Your task to perform on an android device: change alarm snooze length Image 0: 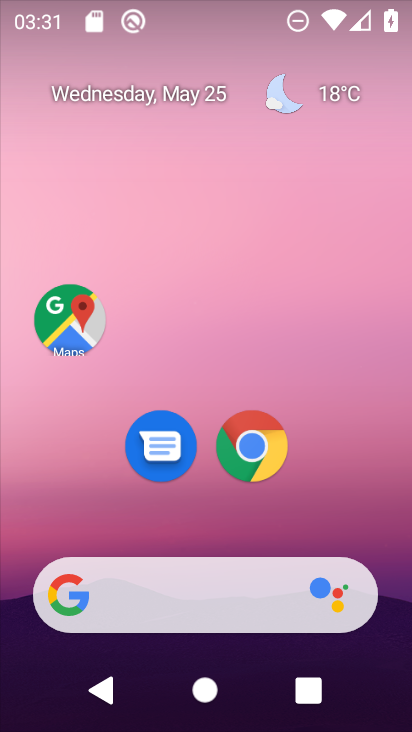
Step 0: drag from (236, 578) to (244, 106)
Your task to perform on an android device: change alarm snooze length Image 1: 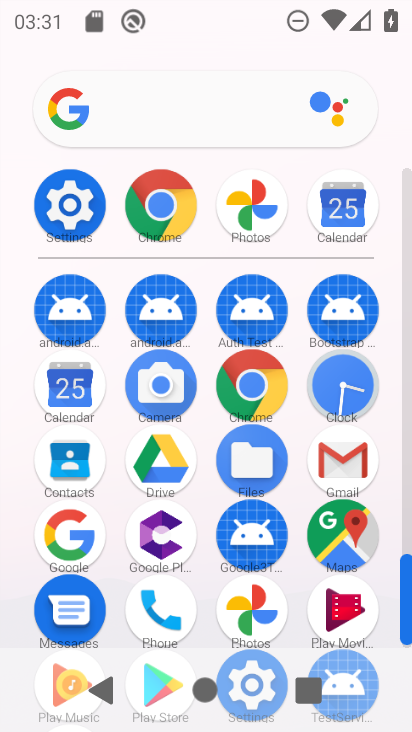
Step 1: click (334, 392)
Your task to perform on an android device: change alarm snooze length Image 2: 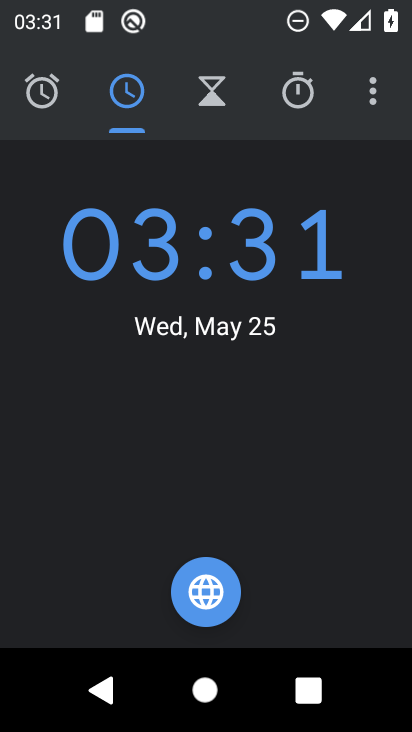
Step 2: click (373, 91)
Your task to perform on an android device: change alarm snooze length Image 3: 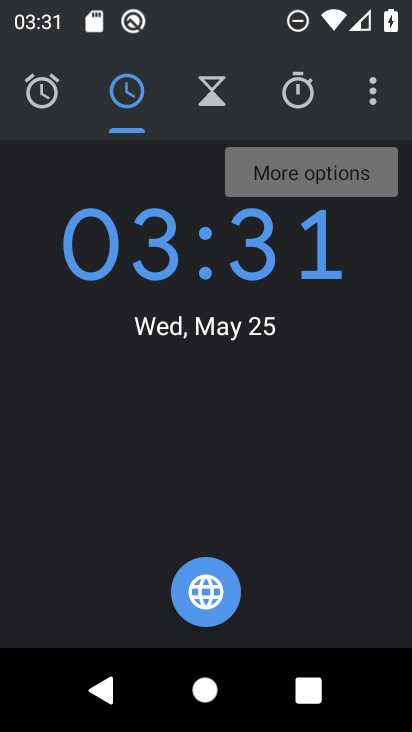
Step 3: click (365, 107)
Your task to perform on an android device: change alarm snooze length Image 4: 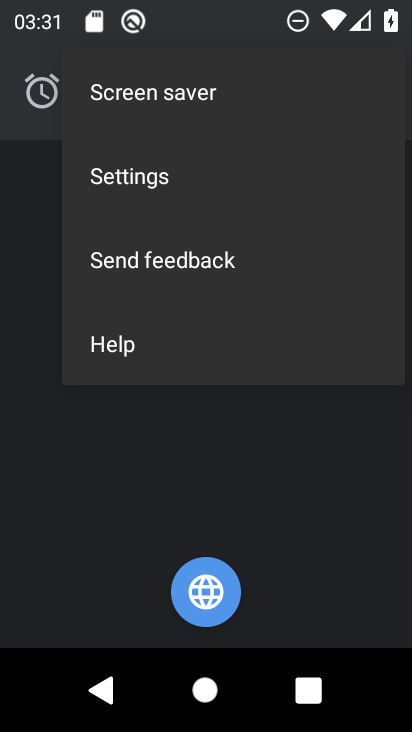
Step 4: click (178, 187)
Your task to perform on an android device: change alarm snooze length Image 5: 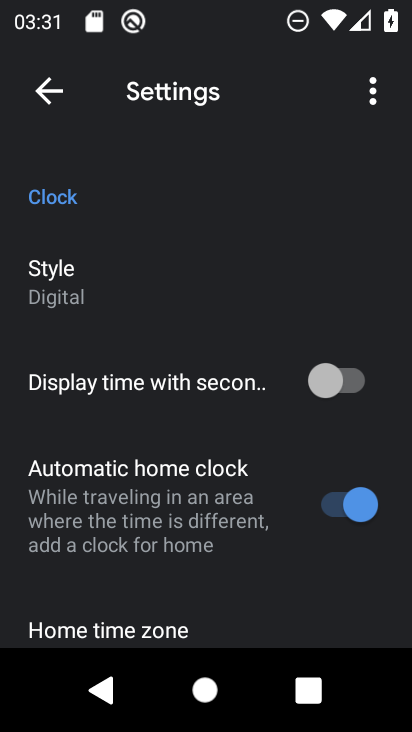
Step 5: drag from (211, 553) to (203, 204)
Your task to perform on an android device: change alarm snooze length Image 6: 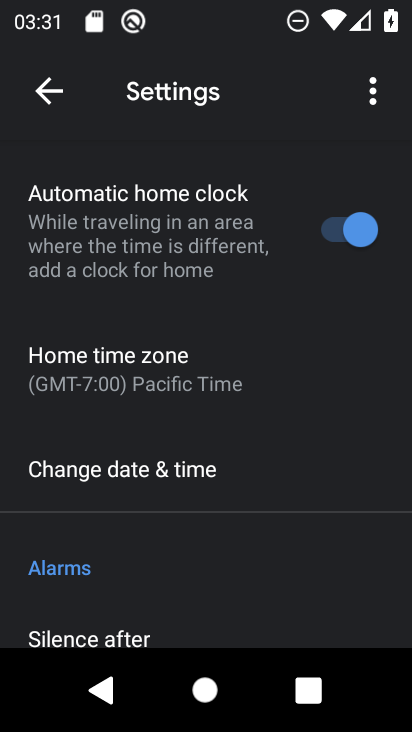
Step 6: drag from (186, 588) to (226, 100)
Your task to perform on an android device: change alarm snooze length Image 7: 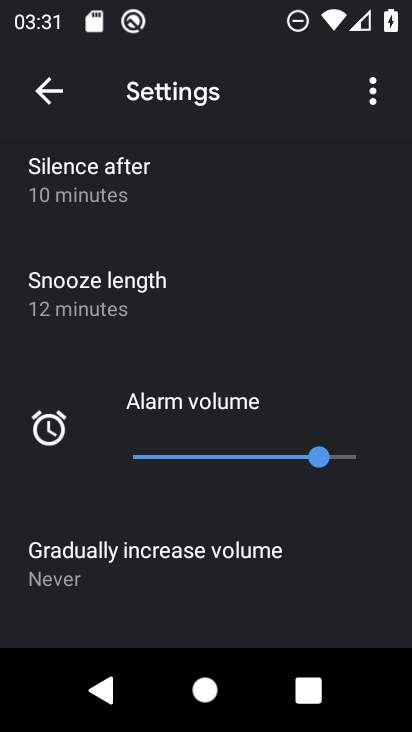
Step 7: click (160, 270)
Your task to perform on an android device: change alarm snooze length Image 8: 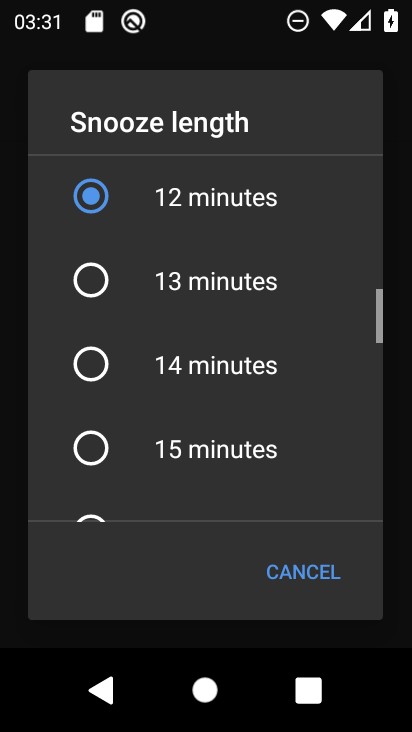
Step 8: click (199, 464)
Your task to perform on an android device: change alarm snooze length Image 9: 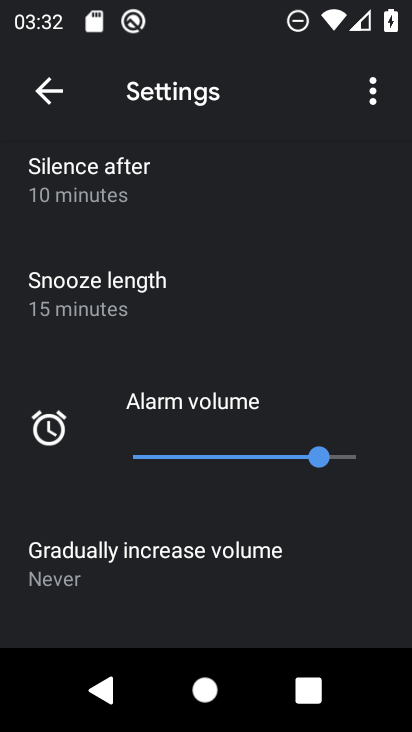
Step 9: task complete